Your task to perform on an android device: Open the stopwatch Image 0: 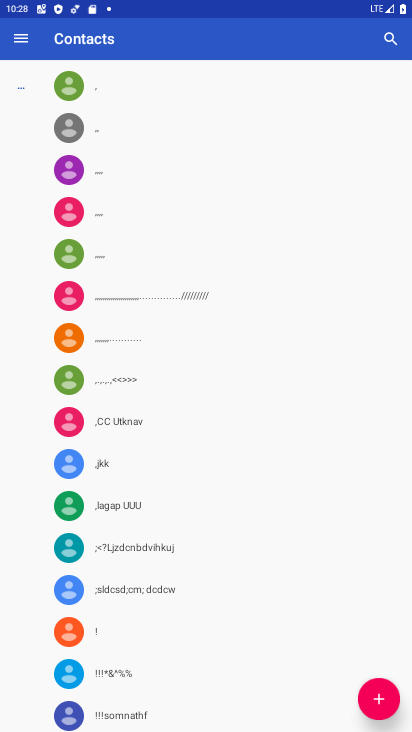
Step 0: press home button
Your task to perform on an android device: Open the stopwatch Image 1: 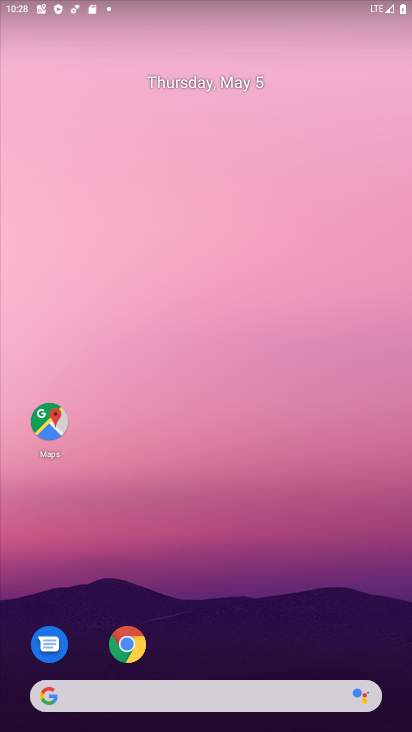
Step 1: drag from (185, 669) to (291, 81)
Your task to perform on an android device: Open the stopwatch Image 2: 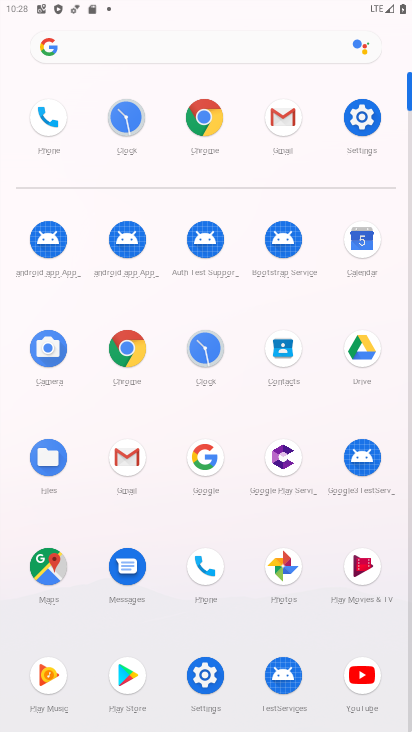
Step 2: click (207, 361)
Your task to perform on an android device: Open the stopwatch Image 3: 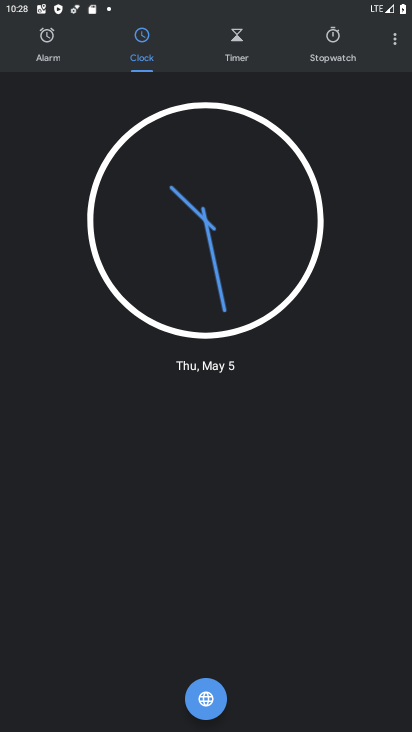
Step 3: click (322, 42)
Your task to perform on an android device: Open the stopwatch Image 4: 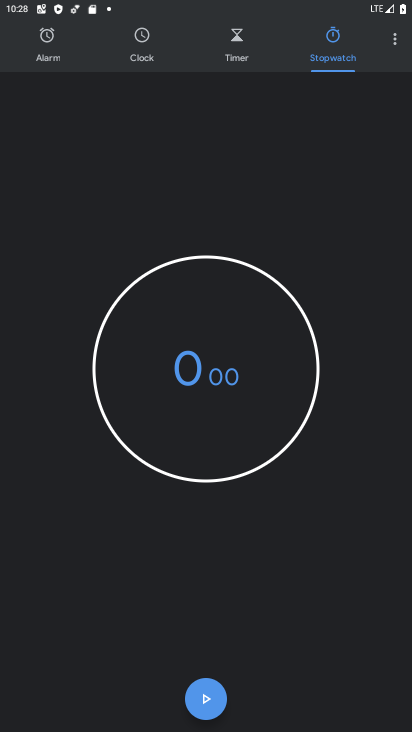
Step 4: task complete